Your task to perform on an android device: open a bookmark in the chrome app Image 0: 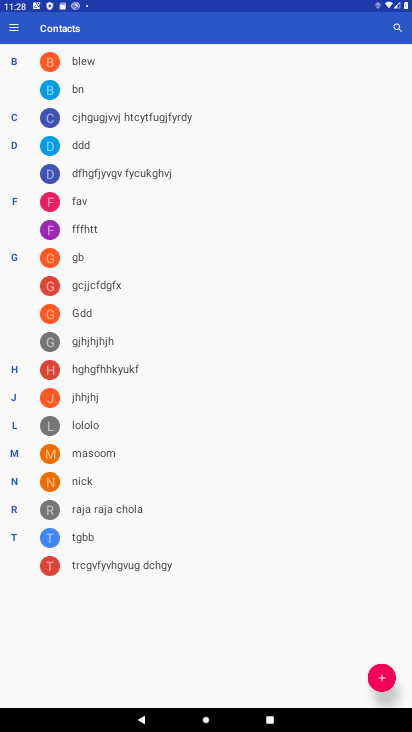
Step 0: press home button
Your task to perform on an android device: open a bookmark in the chrome app Image 1: 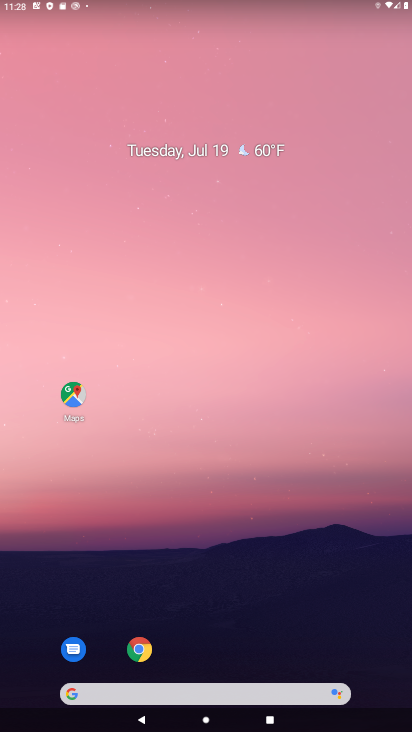
Step 1: click (148, 646)
Your task to perform on an android device: open a bookmark in the chrome app Image 2: 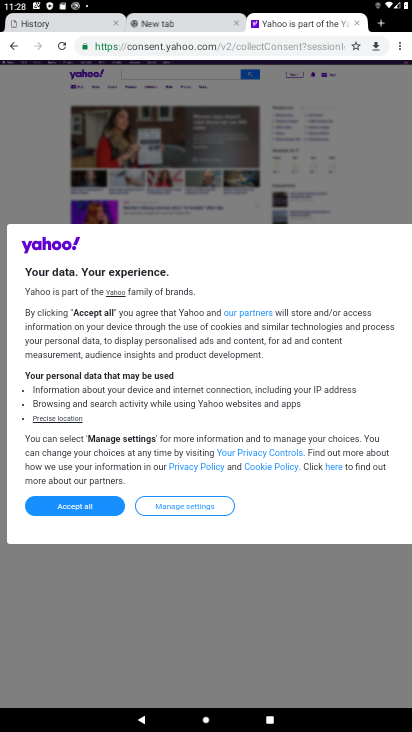
Step 2: drag from (398, 43) to (341, 92)
Your task to perform on an android device: open a bookmark in the chrome app Image 3: 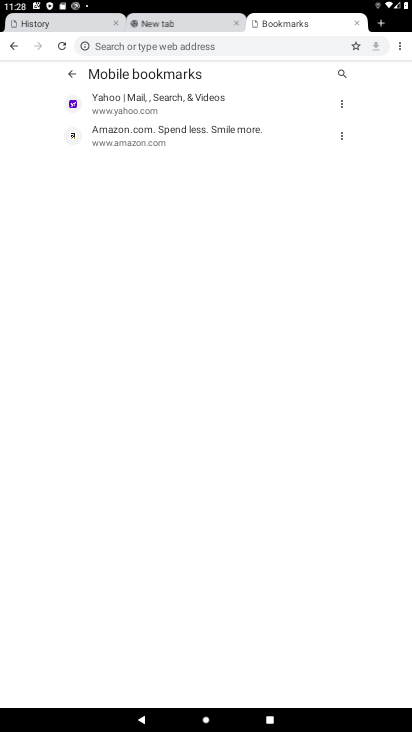
Step 3: click (134, 135)
Your task to perform on an android device: open a bookmark in the chrome app Image 4: 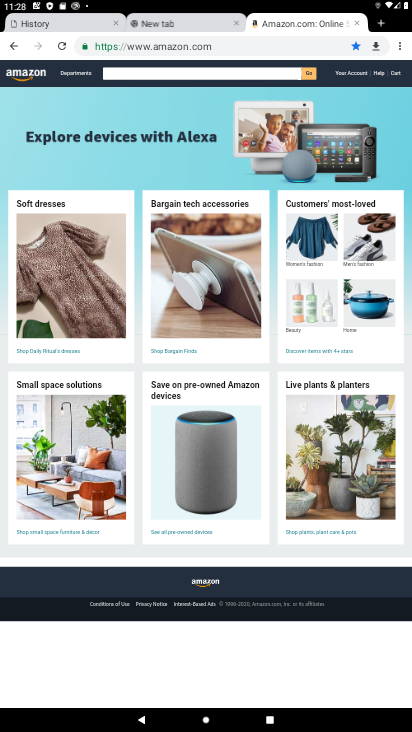
Step 4: task complete